Your task to perform on an android device: turn off notifications in google photos Image 0: 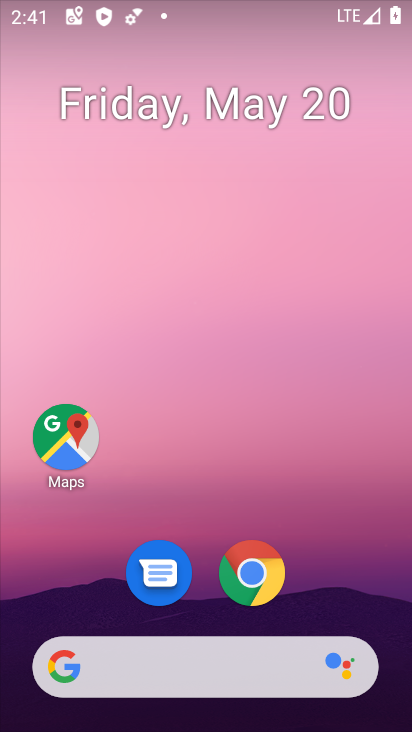
Step 0: drag from (365, 626) to (269, 99)
Your task to perform on an android device: turn off notifications in google photos Image 1: 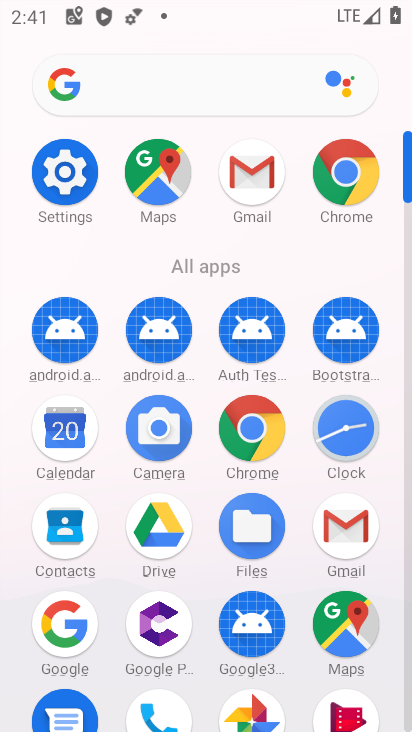
Step 1: click (242, 696)
Your task to perform on an android device: turn off notifications in google photos Image 2: 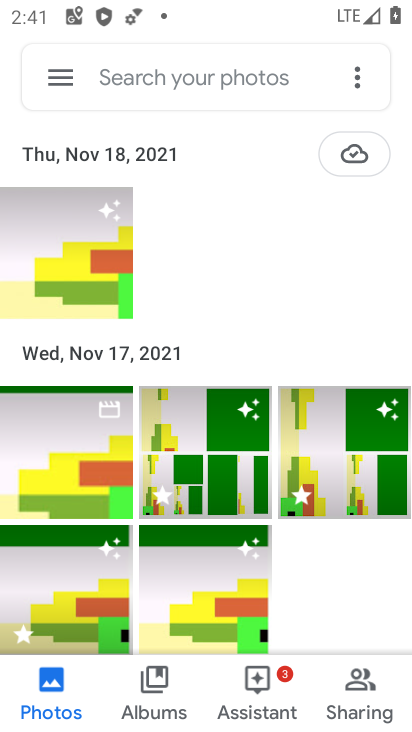
Step 2: click (69, 96)
Your task to perform on an android device: turn off notifications in google photos Image 3: 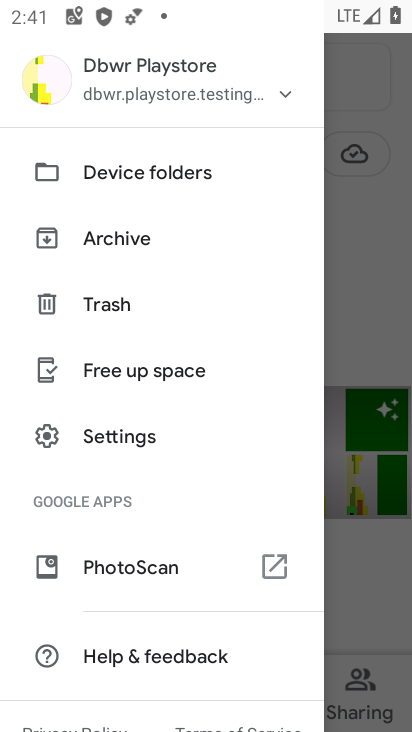
Step 3: click (153, 451)
Your task to perform on an android device: turn off notifications in google photos Image 4: 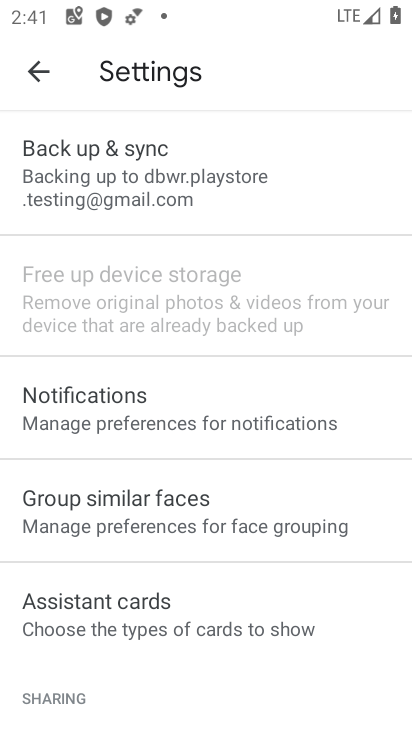
Step 4: click (171, 423)
Your task to perform on an android device: turn off notifications in google photos Image 5: 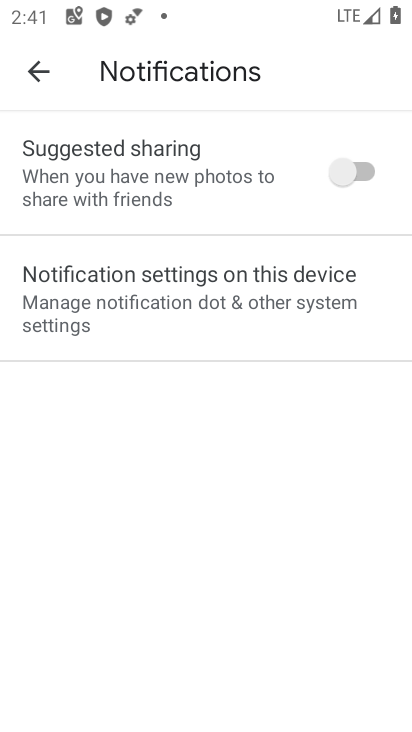
Step 5: click (204, 309)
Your task to perform on an android device: turn off notifications in google photos Image 6: 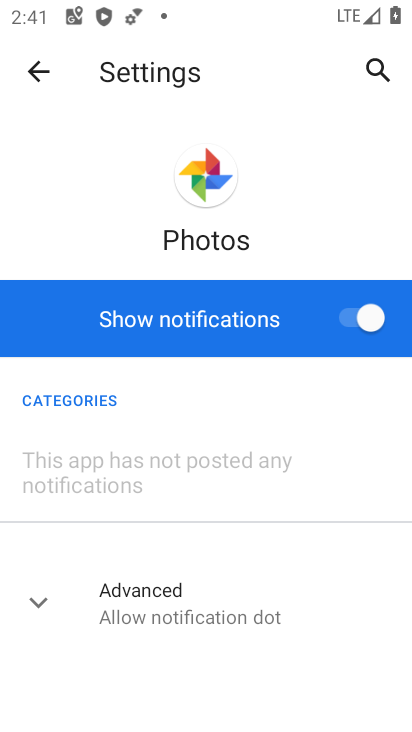
Step 6: drag from (260, 641) to (251, 322)
Your task to perform on an android device: turn off notifications in google photos Image 7: 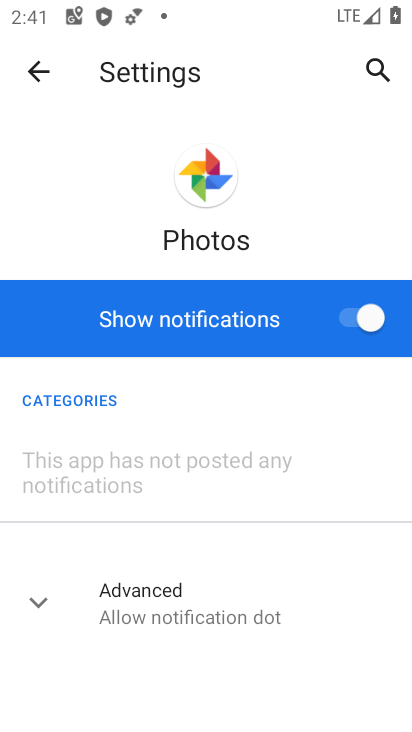
Step 7: click (363, 311)
Your task to perform on an android device: turn off notifications in google photos Image 8: 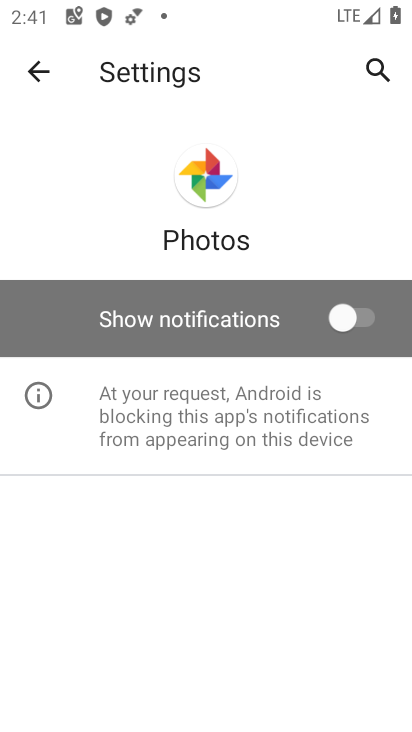
Step 8: task complete